Your task to perform on an android device: turn off location Image 0: 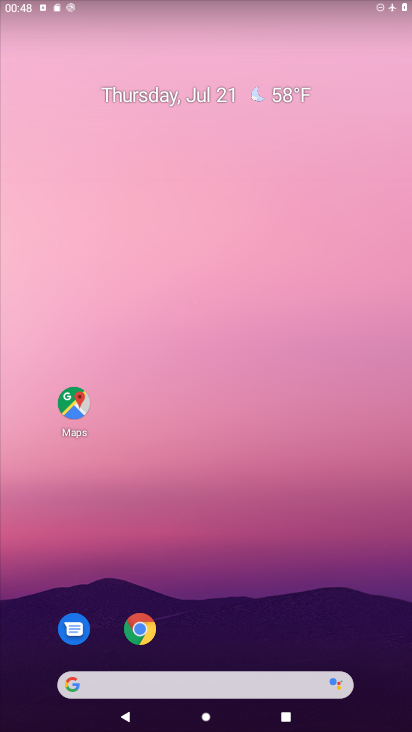
Step 0: drag from (225, 617) to (206, 227)
Your task to perform on an android device: turn off location Image 1: 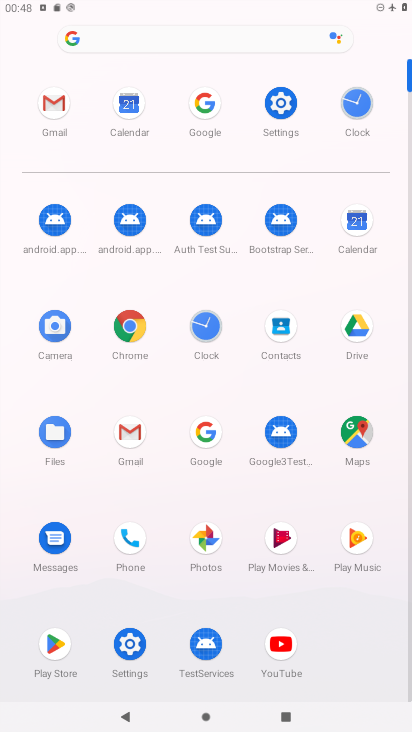
Step 1: click (285, 118)
Your task to perform on an android device: turn off location Image 2: 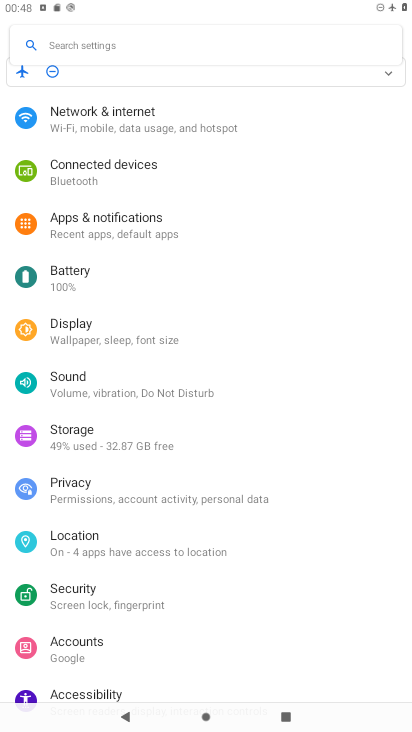
Step 2: click (110, 550)
Your task to perform on an android device: turn off location Image 3: 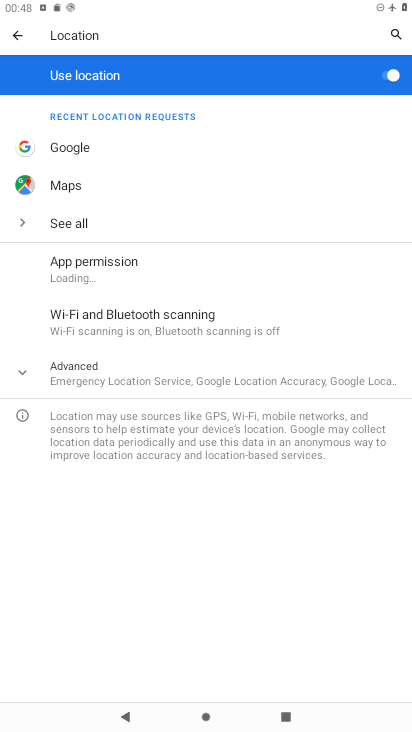
Step 3: click (385, 69)
Your task to perform on an android device: turn off location Image 4: 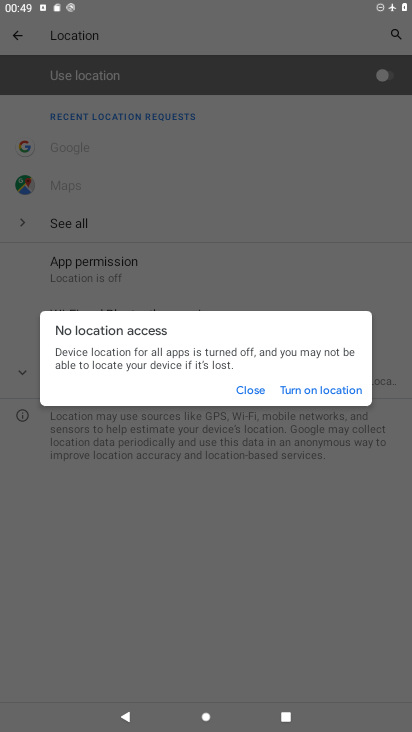
Step 4: task complete